Your task to perform on an android device: Go to Wikipedia Image 0: 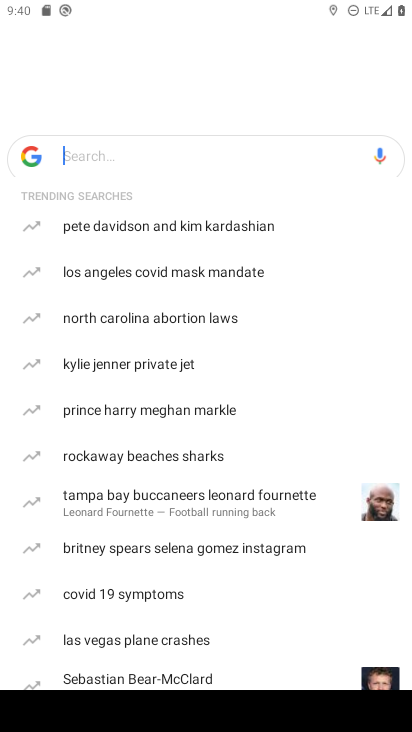
Step 0: press home button
Your task to perform on an android device: Go to Wikipedia Image 1: 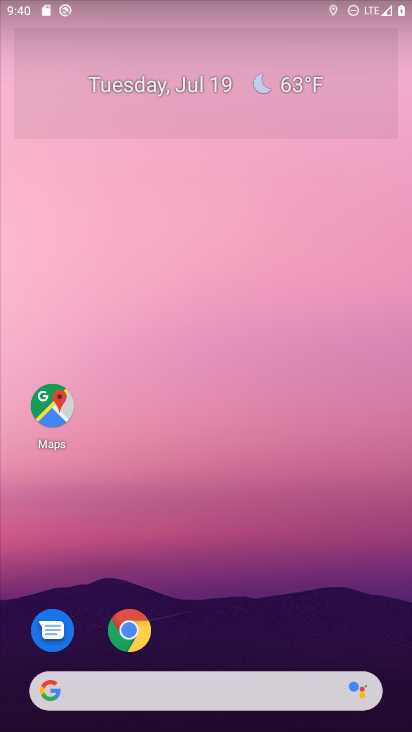
Step 1: click (127, 631)
Your task to perform on an android device: Go to Wikipedia Image 2: 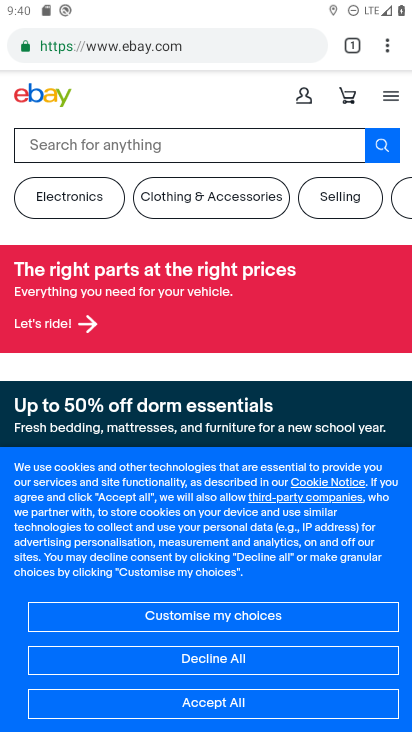
Step 2: click (212, 53)
Your task to perform on an android device: Go to Wikipedia Image 3: 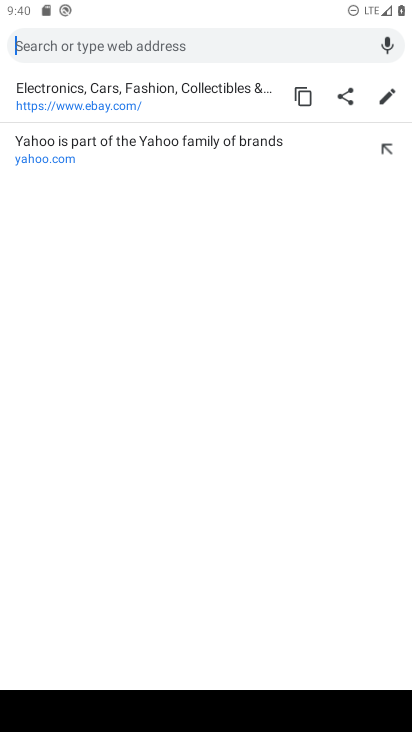
Step 3: type "Wikipedia"
Your task to perform on an android device: Go to Wikipedia Image 4: 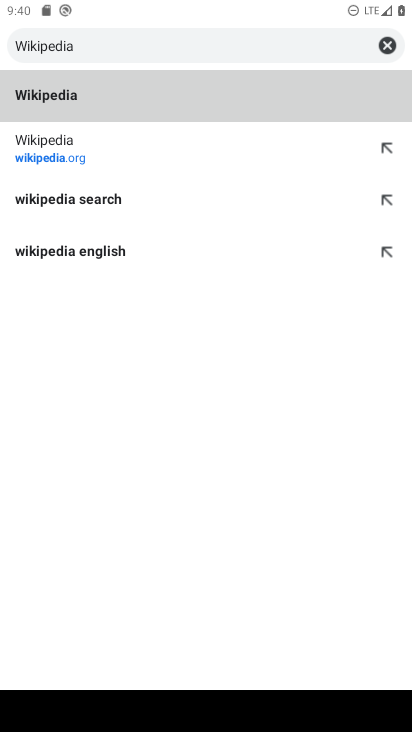
Step 4: click (94, 102)
Your task to perform on an android device: Go to Wikipedia Image 5: 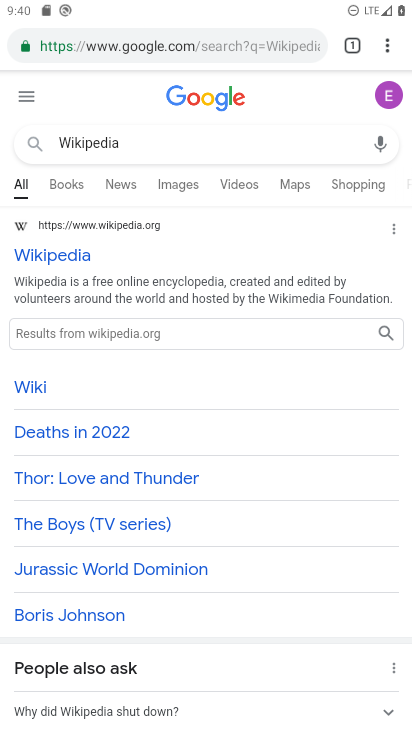
Step 5: click (85, 257)
Your task to perform on an android device: Go to Wikipedia Image 6: 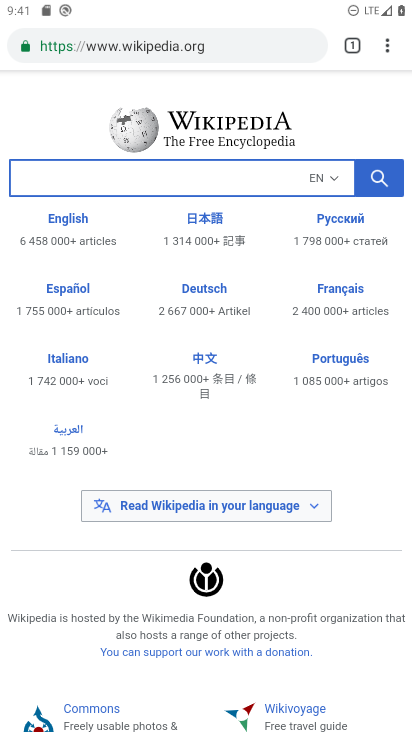
Step 6: task complete